Your task to perform on an android device: turn on javascript in the chrome app Image 0: 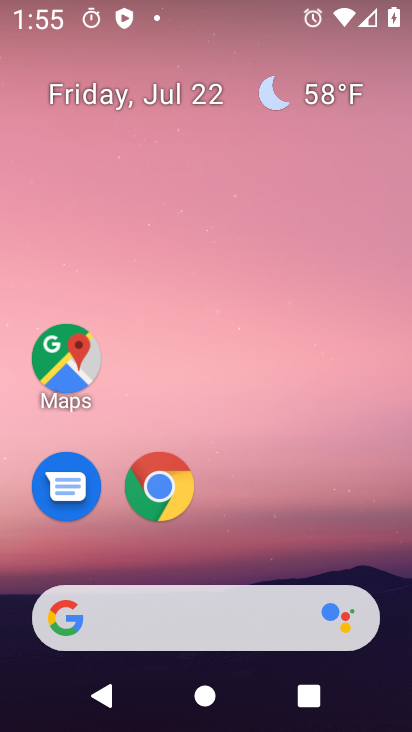
Step 0: drag from (354, 528) to (339, 110)
Your task to perform on an android device: turn on javascript in the chrome app Image 1: 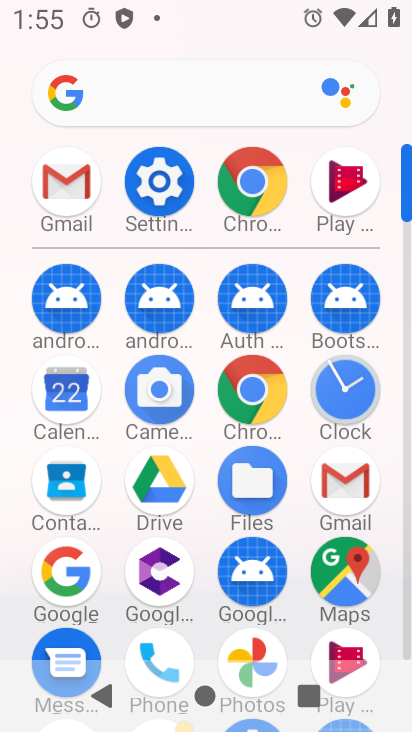
Step 1: click (263, 386)
Your task to perform on an android device: turn on javascript in the chrome app Image 2: 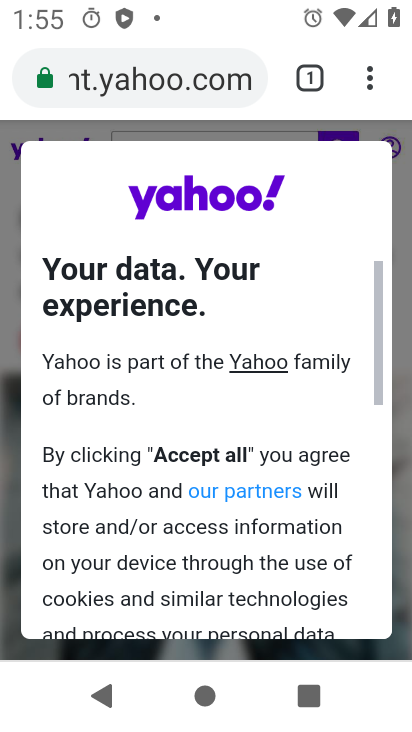
Step 2: click (368, 86)
Your task to perform on an android device: turn on javascript in the chrome app Image 3: 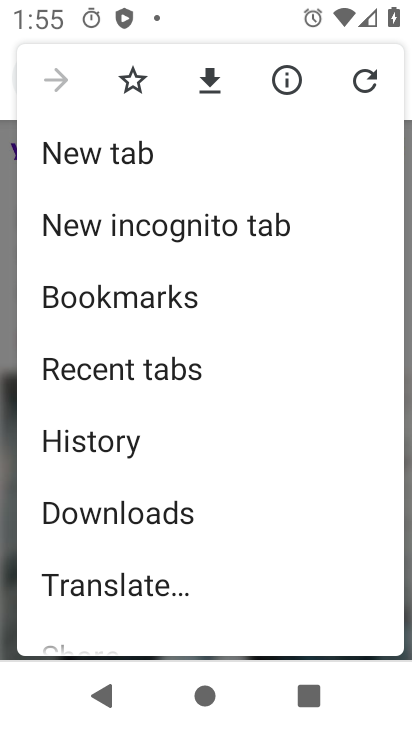
Step 3: drag from (326, 514) to (344, 419)
Your task to perform on an android device: turn on javascript in the chrome app Image 4: 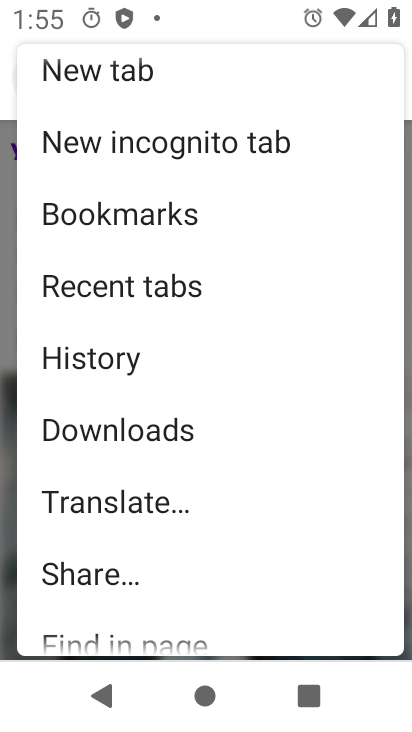
Step 4: drag from (319, 517) to (319, 395)
Your task to perform on an android device: turn on javascript in the chrome app Image 5: 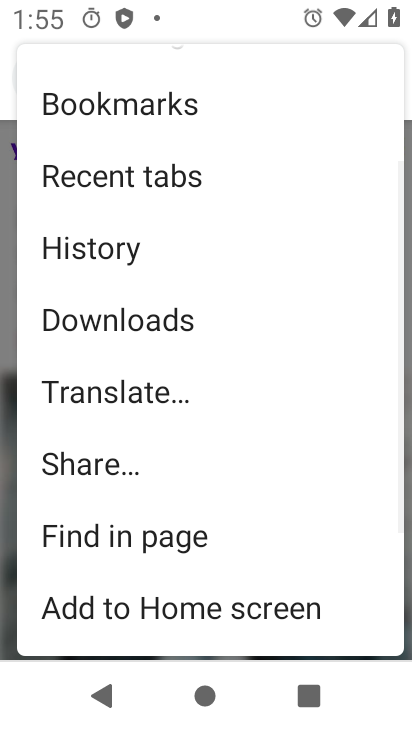
Step 5: drag from (314, 514) to (311, 390)
Your task to perform on an android device: turn on javascript in the chrome app Image 6: 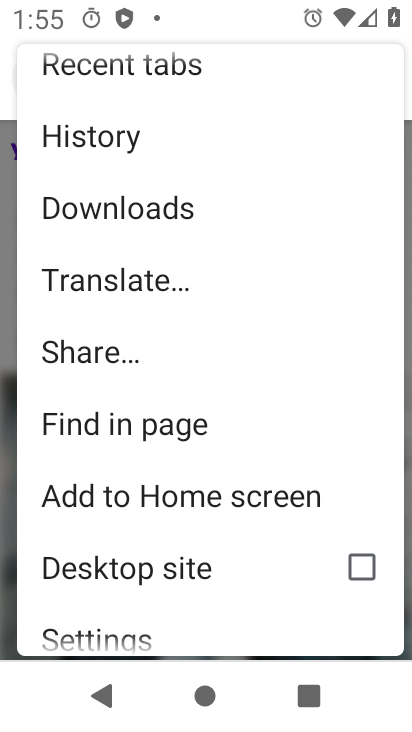
Step 6: drag from (298, 584) to (288, 476)
Your task to perform on an android device: turn on javascript in the chrome app Image 7: 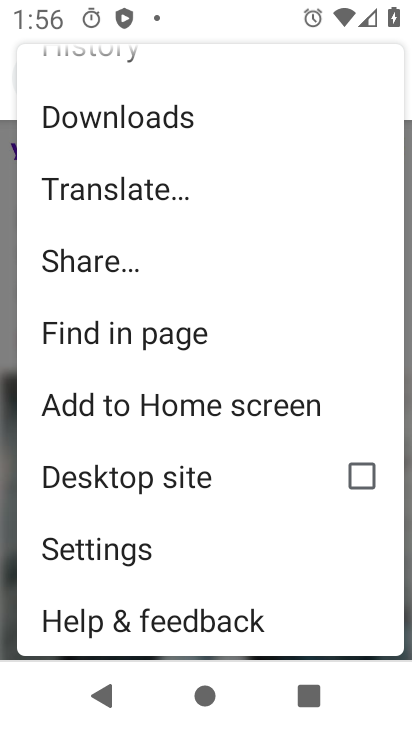
Step 7: click (215, 541)
Your task to perform on an android device: turn on javascript in the chrome app Image 8: 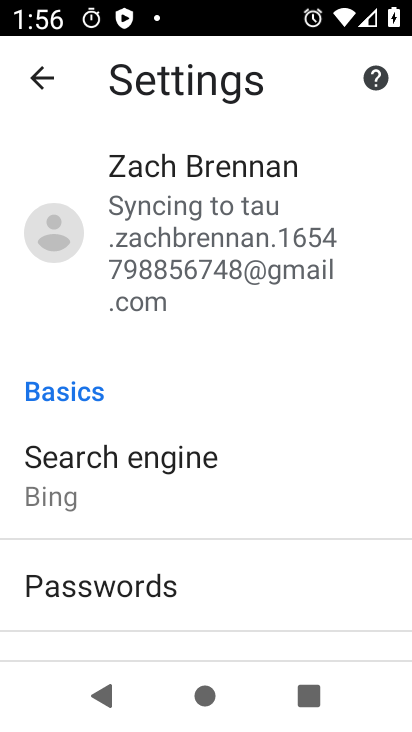
Step 8: drag from (316, 558) to (329, 481)
Your task to perform on an android device: turn on javascript in the chrome app Image 9: 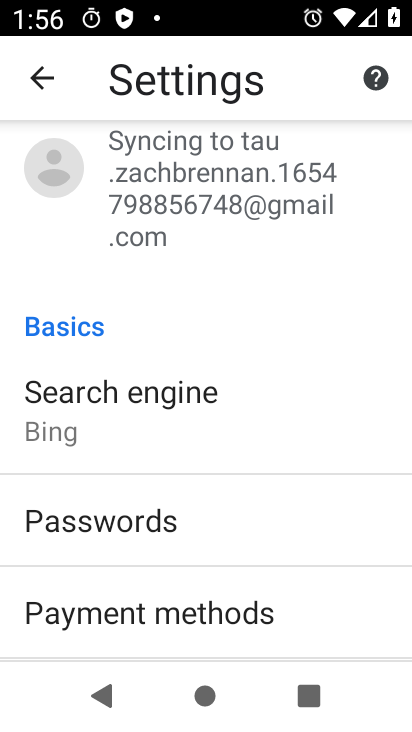
Step 9: drag from (330, 565) to (328, 470)
Your task to perform on an android device: turn on javascript in the chrome app Image 10: 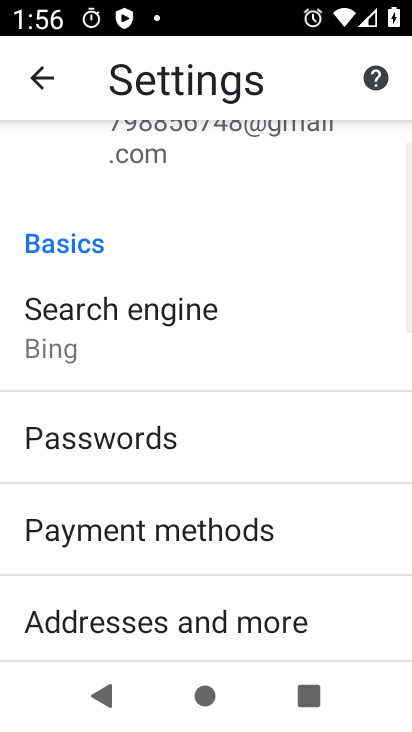
Step 10: drag from (322, 568) to (332, 492)
Your task to perform on an android device: turn on javascript in the chrome app Image 11: 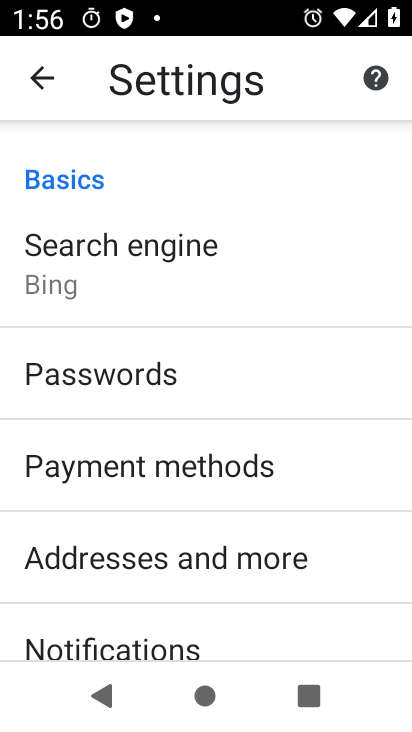
Step 11: drag from (335, 564) to (346, 475)
Your task to perform on an android device: turn on javascript in the chrome app Image 12: 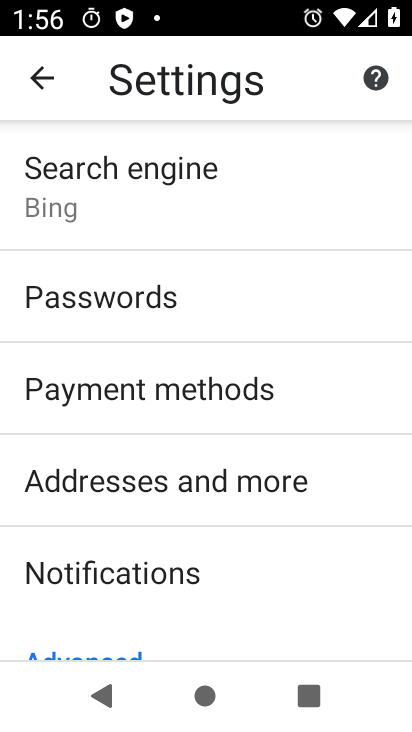
Step 12: drag from (337, 576) to (337, 487)
Your task to perform on an android device: turn on javascript in the chrome app Image 13: 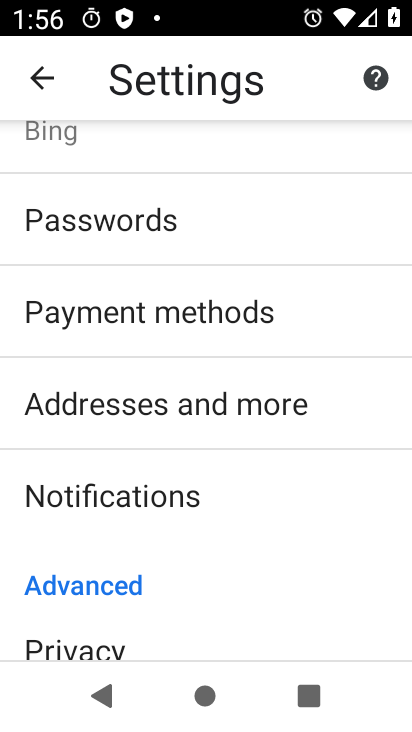
Step 13: drag from (328, 530) to (331, 443)
Your task to perform on an android device: turn on javascript in the chrome app Image 14: 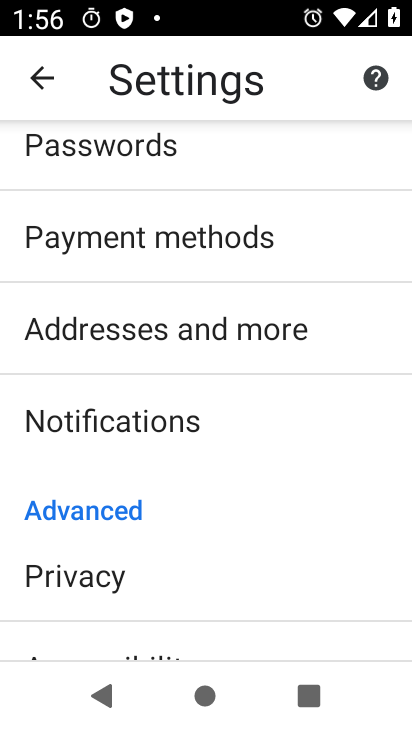
Step 14: drag from (319, 553) to (312, 411)
Your task to perform on an android device: turn on javascript in the chrome app Image 15: 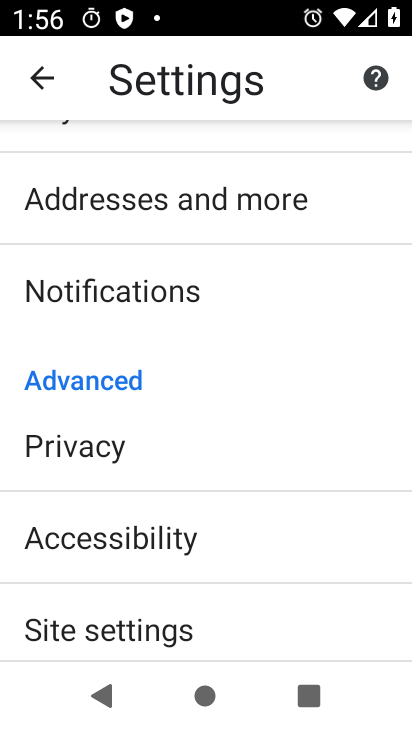
Step 15: drag from (272, 582) to (294, 438)
Your task to perform on an android device: turn on javascript in the chrome app Image 16: 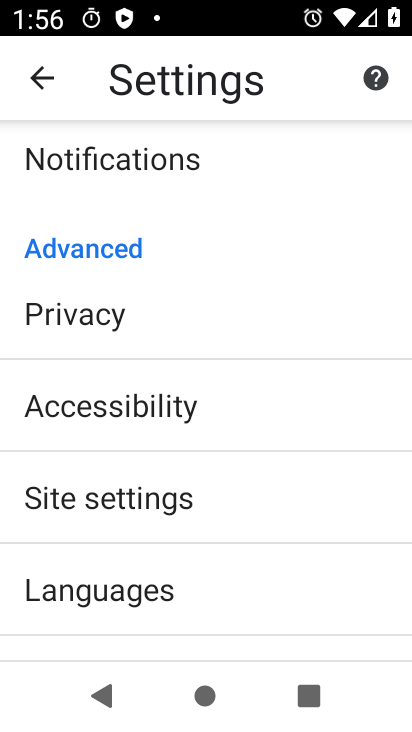
Step 16: click (294, 488)
Your task to perform on an android device: turn on javascript in the chrome app Image 17: 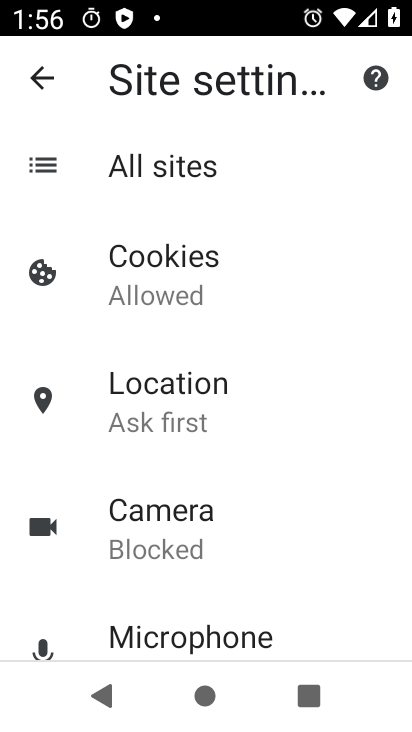
Step 17: drag from (300, 515) to (317, 432)
Your task to perform on an android device: turn on javascript in the chrome app Image 18: 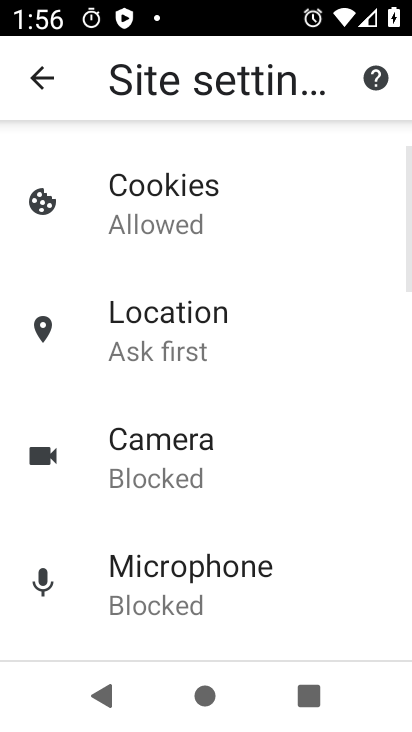
Step 18: drag from (317, 571) to (322, 482)
Your task to perform on an android device: turn on javascript in the chrome app Image 19: 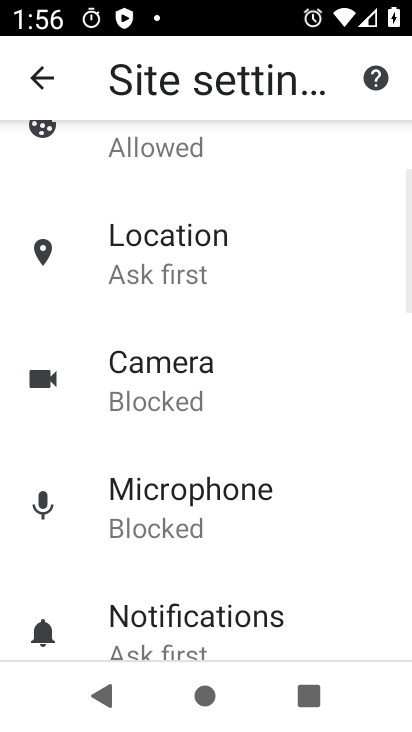
Step 19: drag from (320, 555) to (322, 443)
Your task to perform on an android device: turn on javascript in the chrome app Image 20: 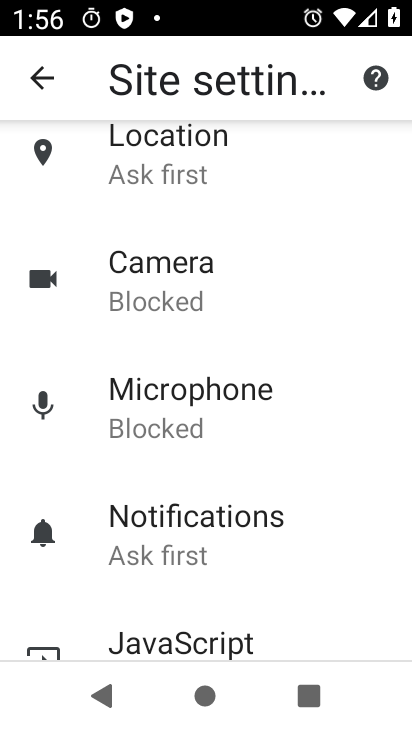
Step 20: drag from (348, 575) to (340, 449)
Your task to perform on an android device: turn on javascript in the chrome app Image 21: 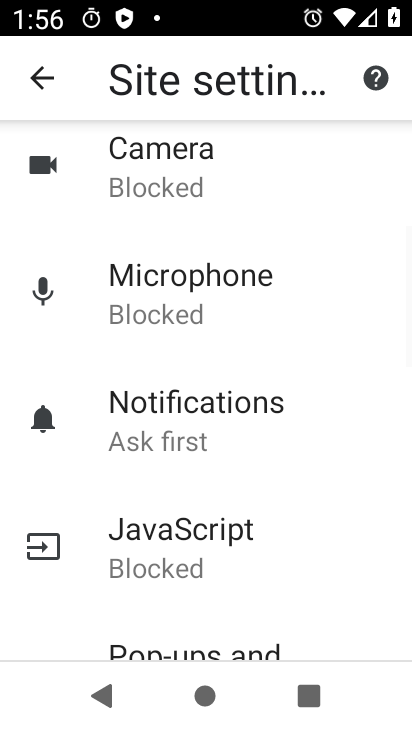
Step 21: drag from (322, 550) to (324, 422)
Your task to perform on an android device: turn on javascript in the chrome app Image 22: 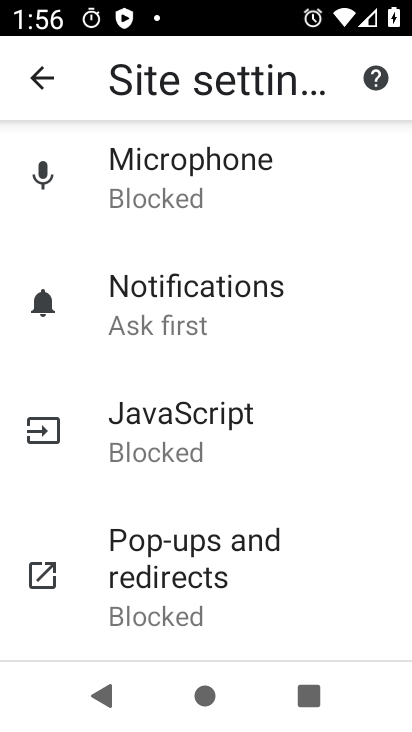
Step 22: click (282, 432)
Your task to perform on an android device: turn on javascript in the chrome app Image 23: 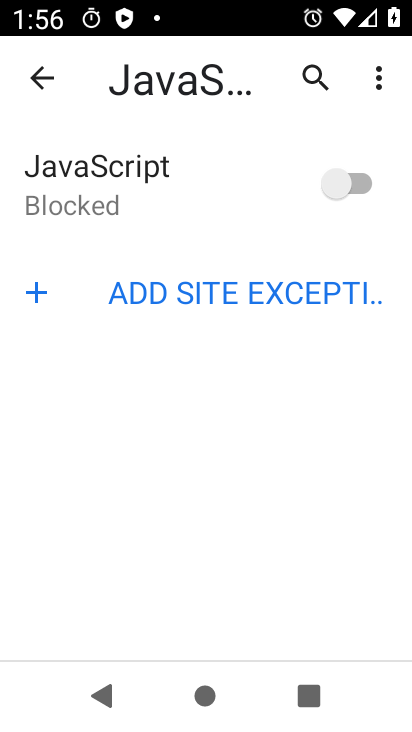
Step 23: click (338, 175)
Your task to perform on an android device: turn on javascript in the chrome app Image 24: 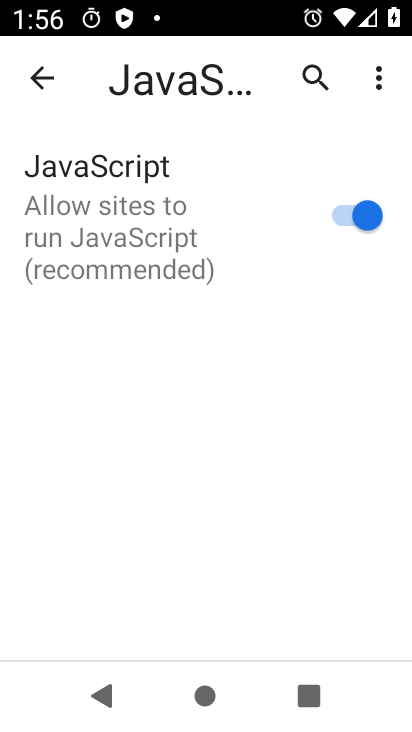
Step 24: task complete